Your task to perform on an android device: open app "Pluto TV - Live TV and Movies" Image 0: 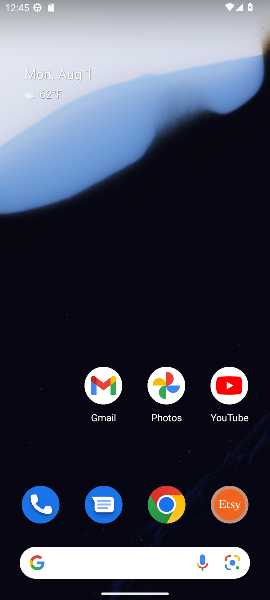
Step 0: drag from (154, 569) to (110, 153)
Your task to perform on an android device: open app "Pluto TV - Live TV and Movies" Image 1: 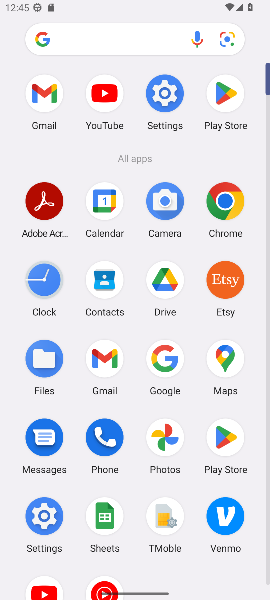
Step 1: click (232, 95)
Your task to perform on an android device: open app "Pluto TV - Live TV and Movies" Image 2: 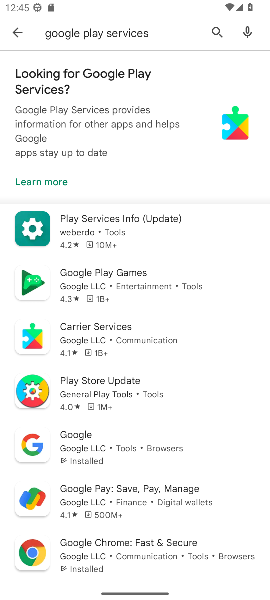
Step 2: click (218, 22)
Your task to perform on an android device: open app "Pluto TV - Live TV and Movies" Image 3: 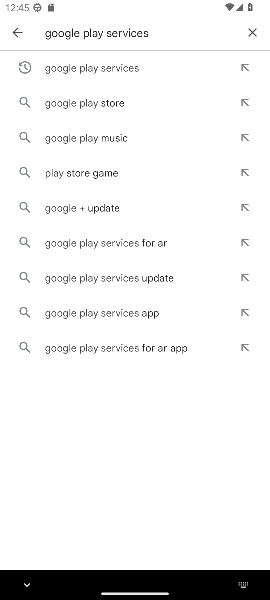
Step 3: click (253, 28)
Your task to perform on an android device: open app "Pluto TV - Live TV and Movies" Image 4: 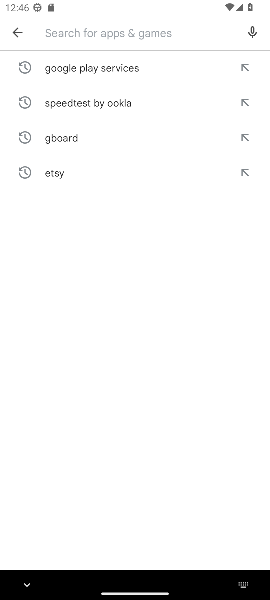
Step 4: type "pluto tv - live tv and movies"
Your task to perform on an android device: open app "Pluto TV - Live TV and Movies" Image 5: 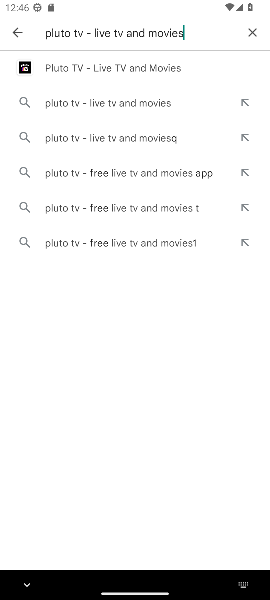
Step 5: click (124, 67)
Your task to perform on an android device: open app "Pluto TV - Live TV and Movies" Image 6: 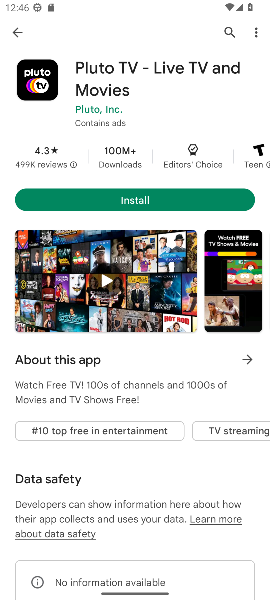
Step 6: task complete